Your task to perform on an android device: open the mobile data screen to see how much data has been used Image 0: 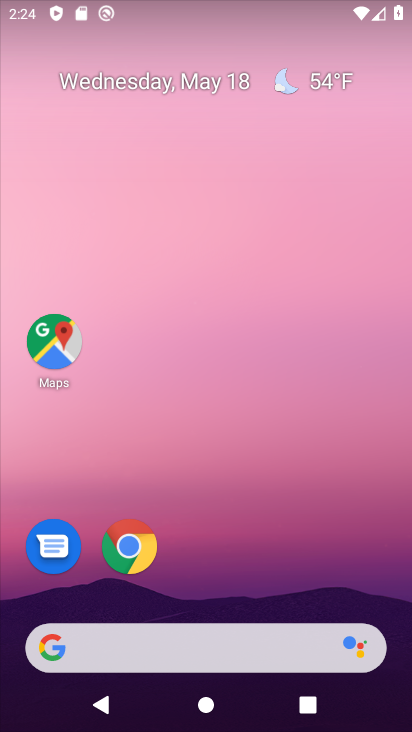
Step 0: press home button
Your task to perform on an android device: open the mobile data screen to see how much data has been used Image 1: 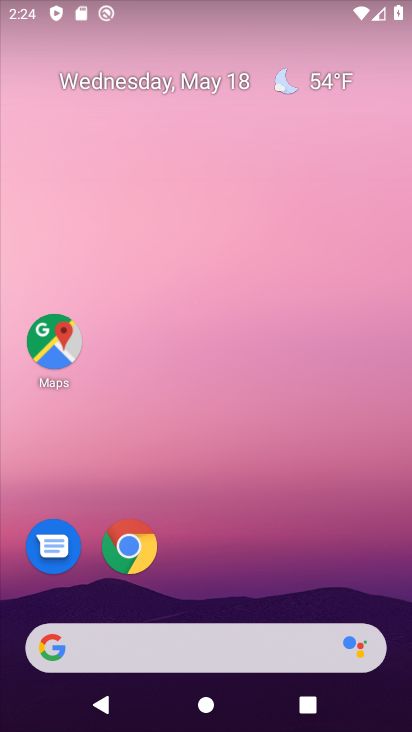
Step 1: drag from (214, 0) to (250, 698)
Your task to perform on an android device: open the mobile data screen to see how much data has been used Image 2: 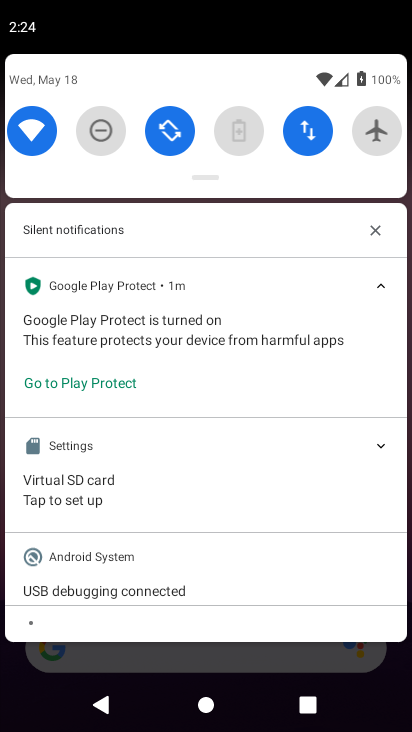
Step 2: click (319, 136)
Your task to perform on an android device: open the mobile data screen to see how much data has been used Image 3: 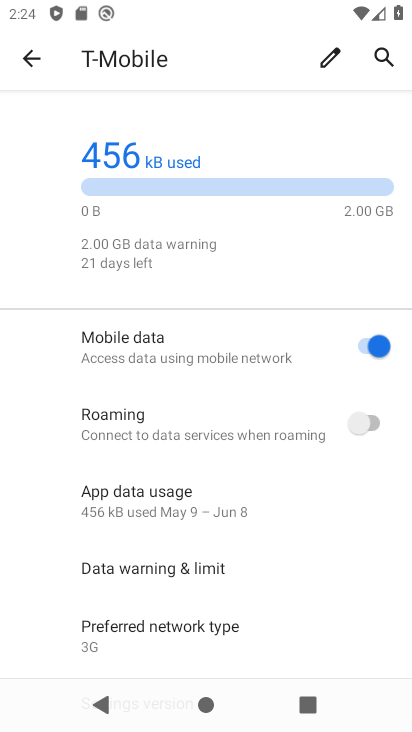
Step 3: task complete